Your task to perform on an android device: turn off improve location accuracy Image 0: 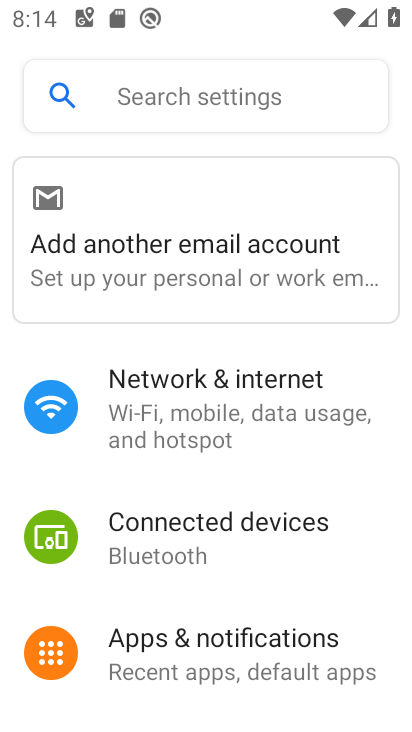
Step 0: drag from (379, 602) to (384, 237)
Your task to perform on an android device: turn off improve location accuracy Image 1: 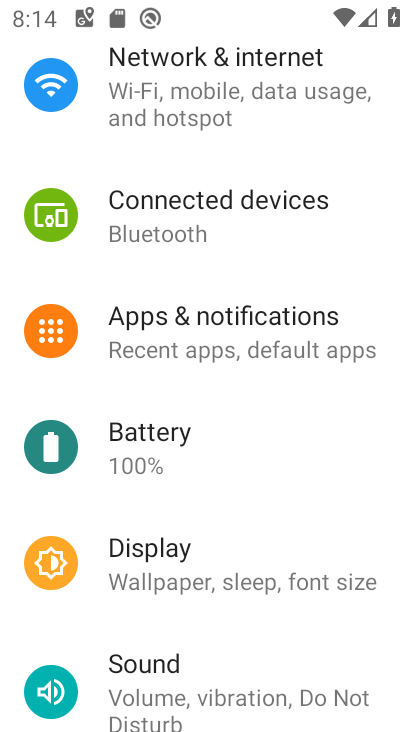
Step 1: drag from (345, 550) to (345, 223)
Your task to perform on an android device: turn off improve location accuracy Image 2: 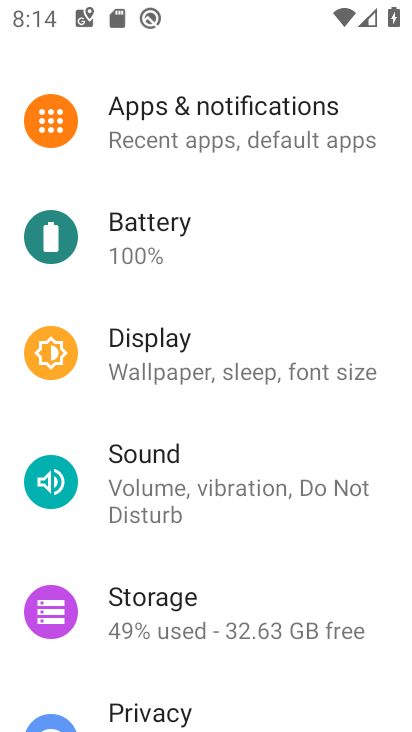
Step 2: drag from (292, 660) to (339, 226)
Your task to perform on an android device: turn off improve location accuracy Image 3: 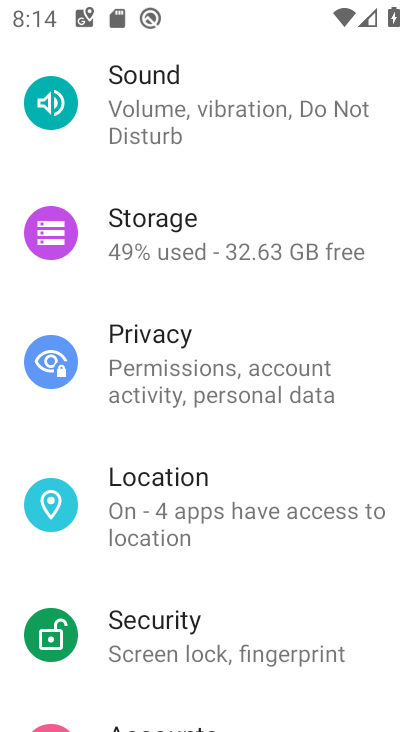
Step 3: drag from (332, 466) to (366, 193)
Your task to perform on an android device: turn off improve location accuracy Image 4: 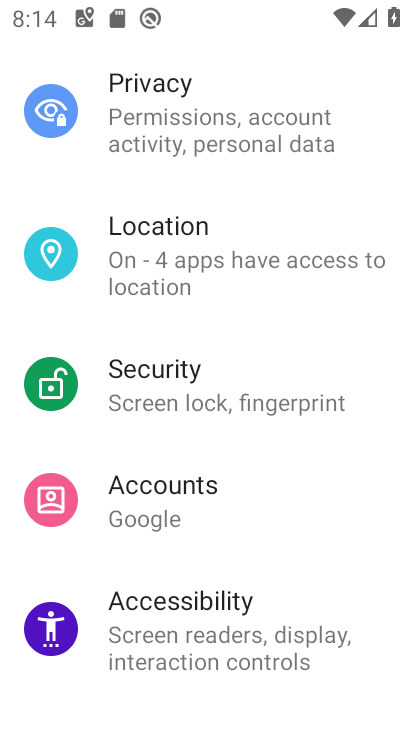
Step 4: click (184, 255)
Your task to perform on an android device: turn off improve location accuracy Image 5: 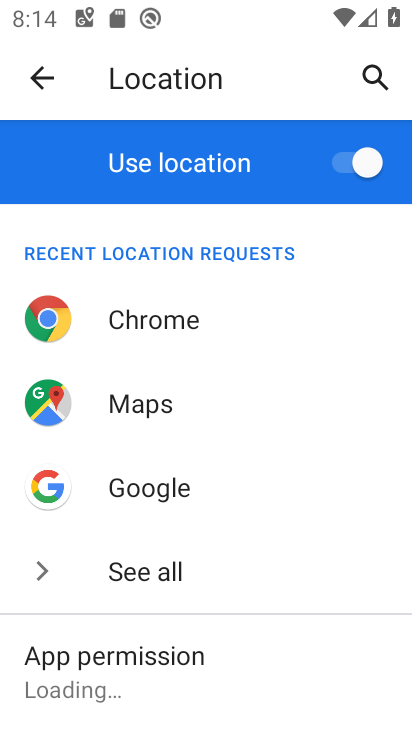
Step 5: drag from (296, 617) to (297, 307)
Your task to perform on an android device: turn off improve location accuracy Image 6: 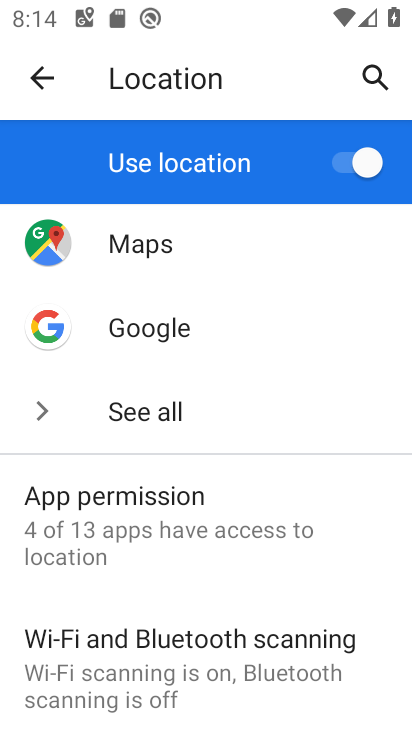
Step 6: drag from (304, 539) to (318, 254)
Your task to perform on an android device: turn off improve location accuracy Image 7: 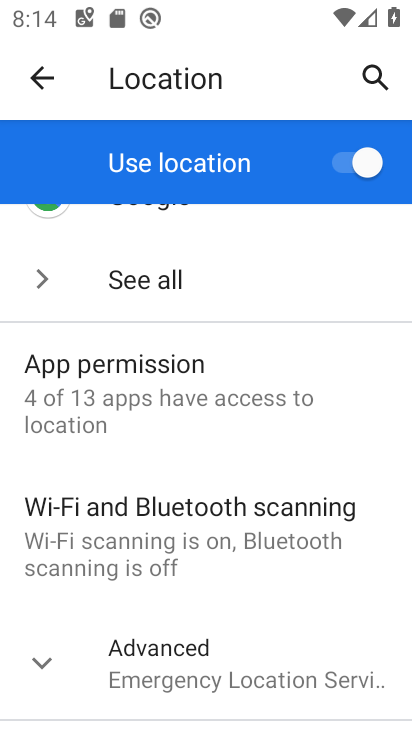
Step 7: click (256, 674)
Your task to perform on an android device: turn off improve location accuracy Image 8: 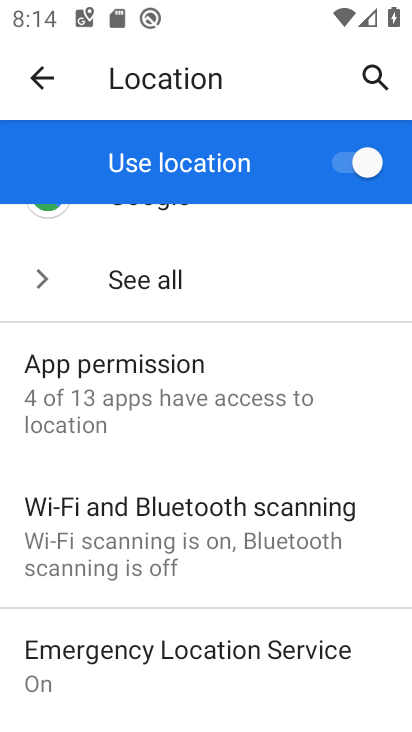
Step 8: drag from (321, 583) to (323, 365)
Your task to perform on an android device: turn off improve location accuracy Image 9: 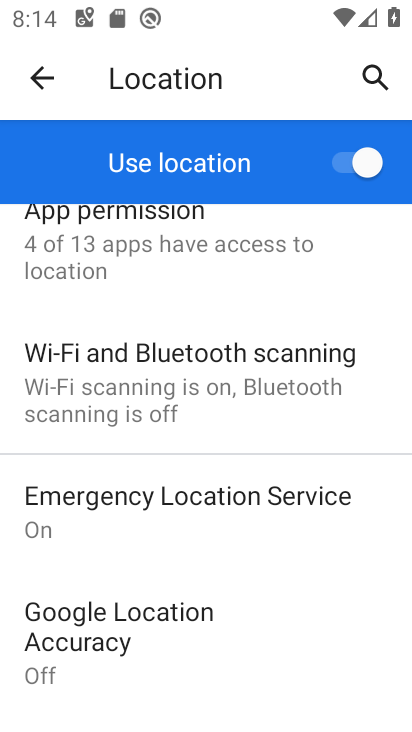
Step 9: click (94, 634)
Your task to perform on an android device: turn off improve location accuracy Image 10: 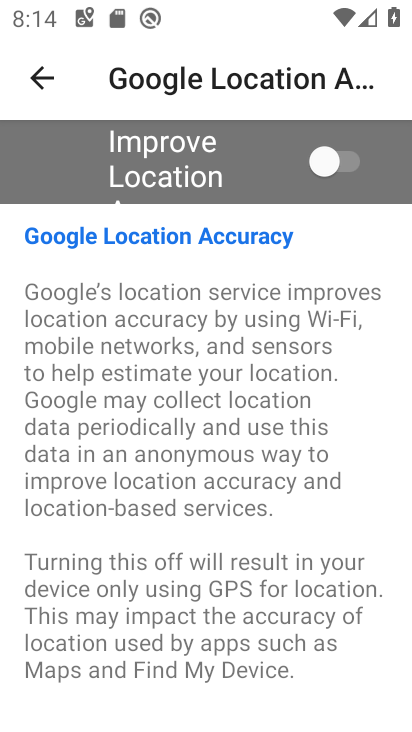
Step 10: task complete